Your task to perform on an android device: Open the stopwatch Image 0: 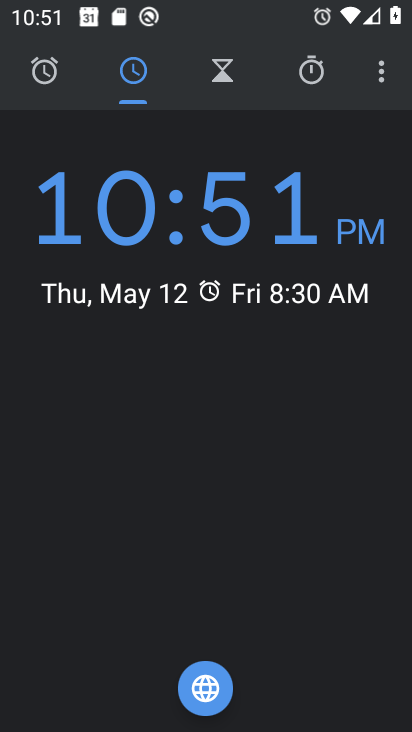
Step 0: click (301, 59)
Your task to perform on an android device: Open the stopwatch Image 1: 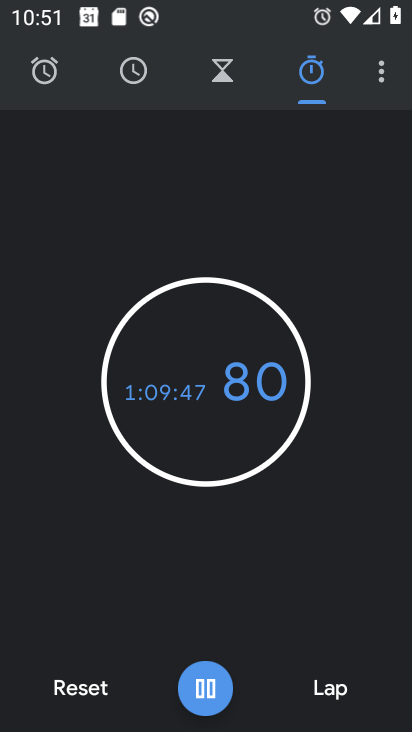
Step 1: click (92, 689)
Your task to perform on an android device: Open the stopwatch Image 2: 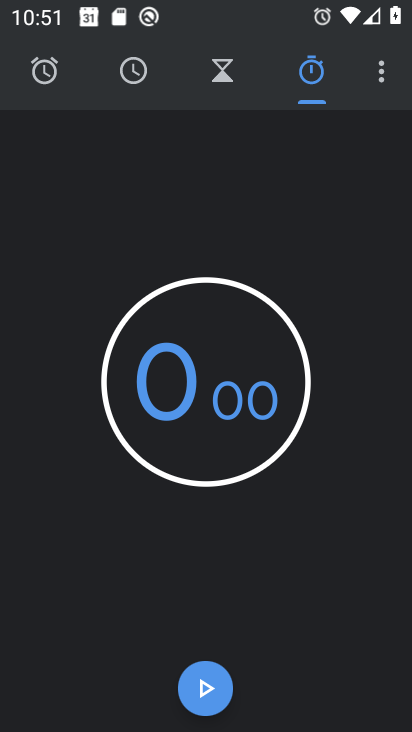
Step 2: click (216, 690)
Your task to perform on an android device: Open the stopwatch Image 3: 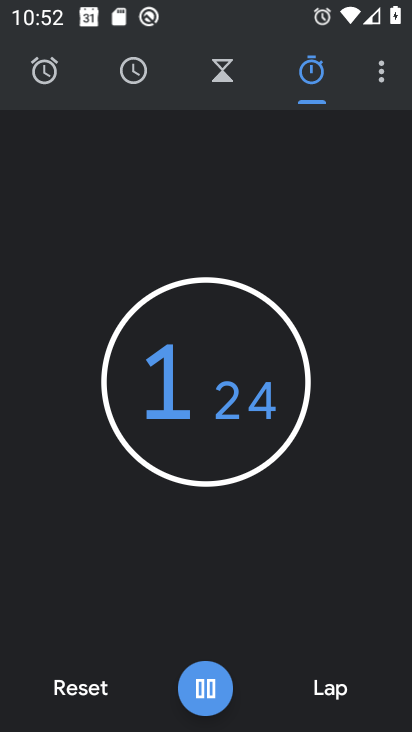
Step 3: task complete